Your task to perform on an android device: stop showing notifications on the lock screen Image 0: 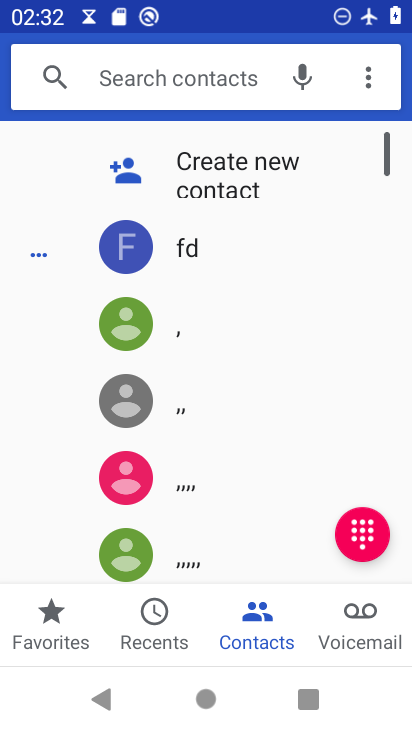
Step 0: press home button
Your task to perform on an android device: stop showing notifications on the lock screen Image 1: 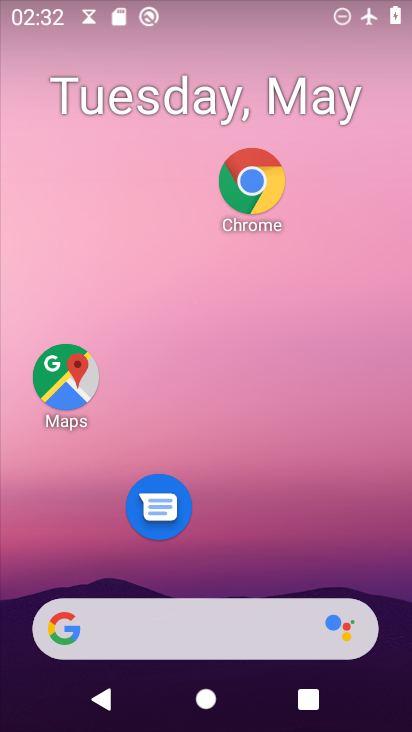
Step 1: drag from (275, 559) to (347, 118)
Your task to perform on an android device: stop showing notifications on the lock screen Image 2: 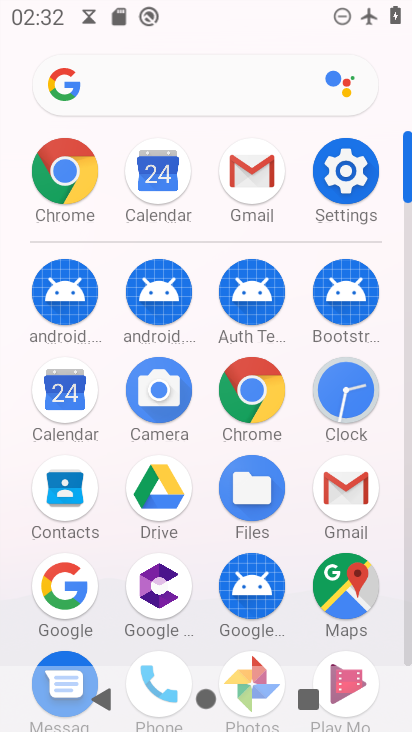
Step 2: click (338, 154)
Your task to perform on an android device: stop showing notifications on the lock screen Image 3: 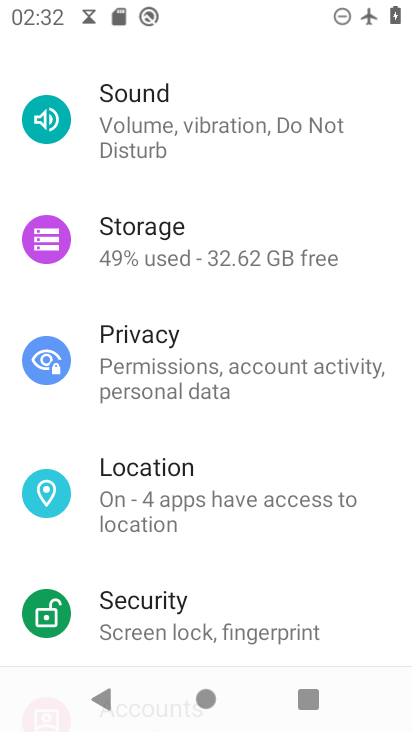
Step 3: drag from (217, 157) to (218, 525)
Your task to perform on an android device: stop showing notifications on the lock screen Image 4: 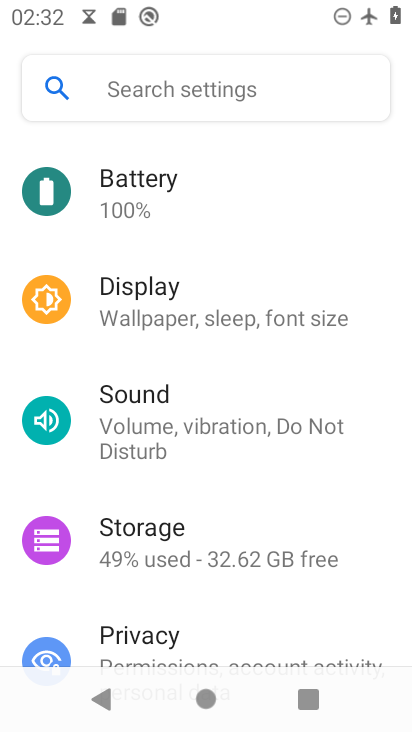
Step 4: drag from (218, 188) to (218, 561)
Your task to perform on an android device: stop showing notifications on the lock screen Image 5: 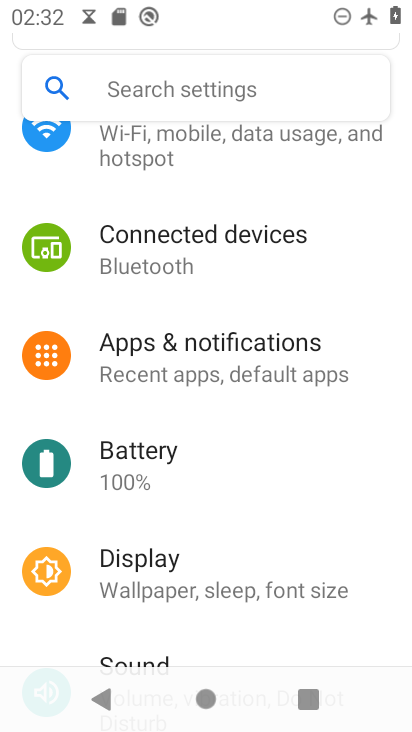
Step 5: click (223, 365)
Your task to perform on an android device: stop showing notifications on the lock screen Image 6: 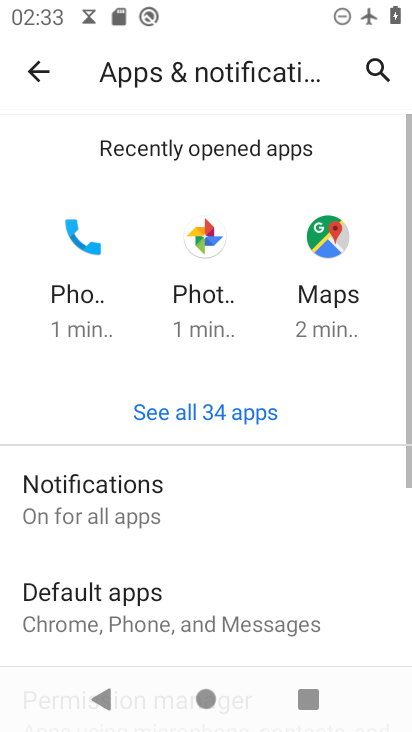
Step 6: click (167, 494)
Your task to perform on an android device: stop showing notifications on the lock screen Image 7: 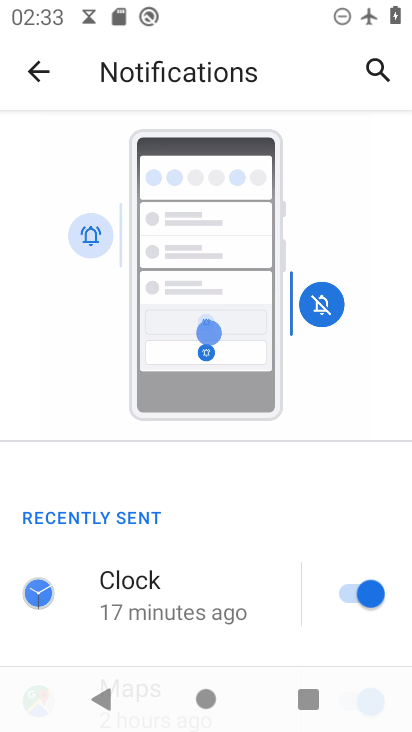
Step 7: drag from (189, 418) to (232, 206)
Your task to perform on an android device: stop showing notifications on the lock screen Image 8: 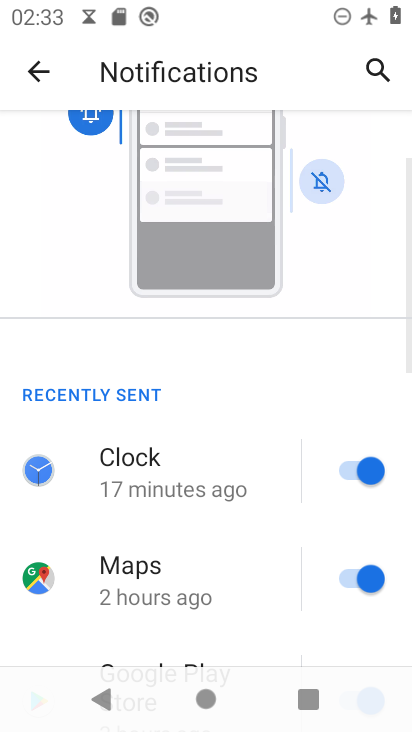
Step 8: drag from (238, 575) to (292, 226)
Your task to perform on an android device: stop showing notifications on the lock screen Image 9: 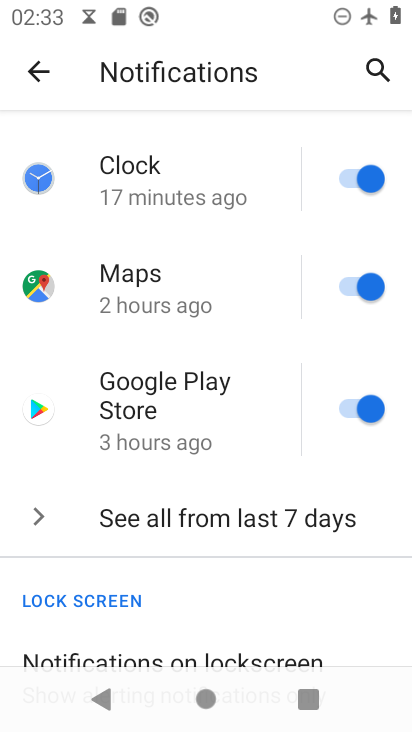
Step 9: drag from (251, 471) to (227, 148)
Your task to perform on an android device: stop showing notifications on the lock screen Image 10: 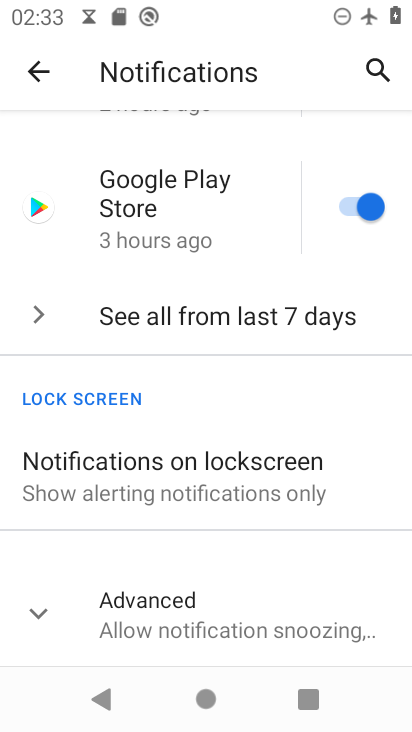
Step 10: click (173, 470)
Your task to perform on an android device: stop showing notifications on the lock screen Image 11: 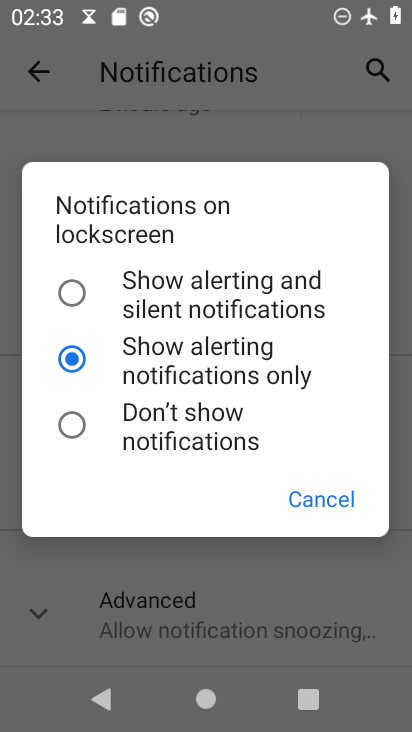
Step 11: click (159, 432)
Your task to perform on an android device: stop showing notifications on the lock screen Image 12: 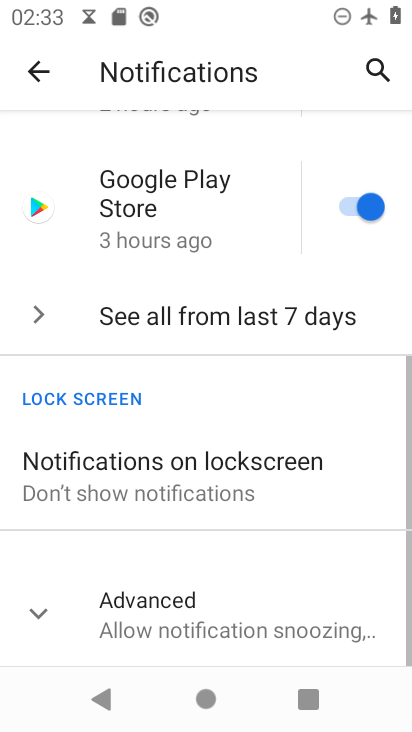
Step 12: task complete